Your task to perform on an android device: turn pop-ups on in chrome Image 0: 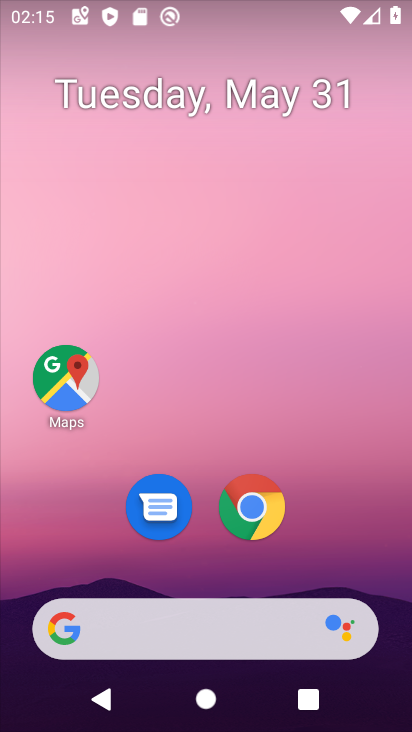
Step 0: click (259, 519)
Your task to perform on an android device: turn pop-ups on in chrome Image 1: 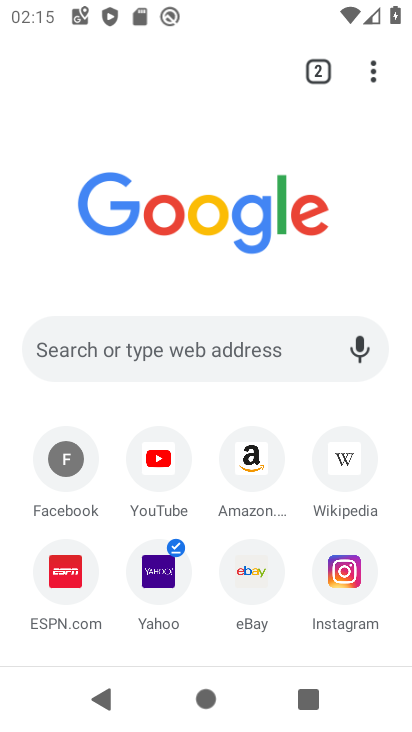
Step 1: click (378, 81)
Your task to perform on an android device: turn pop-ups on in chrome Image 2: 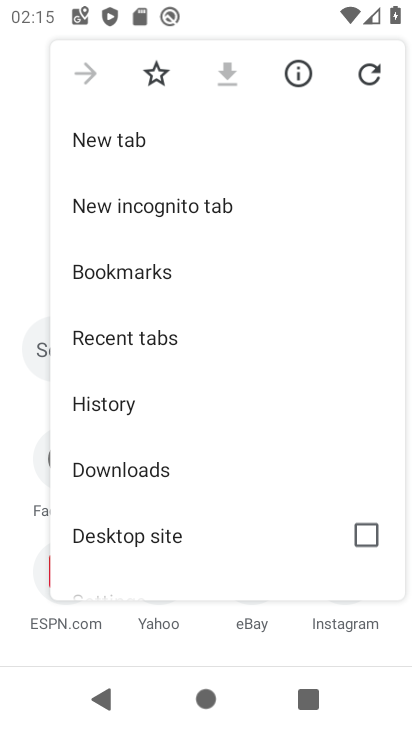
Step 2: drag from (80, 554) to (159, 127)
Your task to perform on an android device: turn pop-ups on in chrome Image 3: 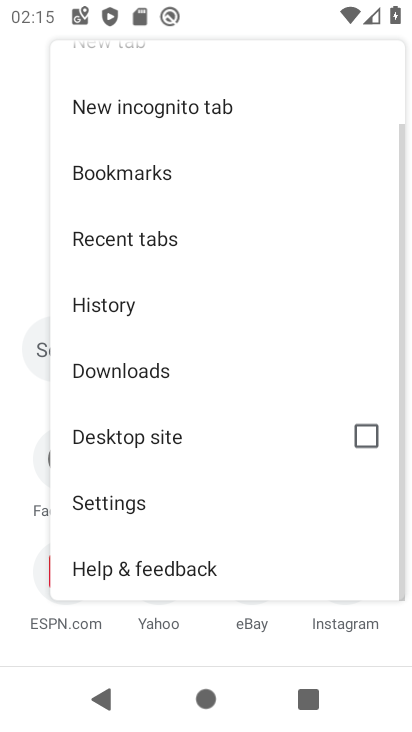
Step 3: click (192, 508)
Your task to perform on an android device: turn pop-ups on in chrome Image 4: 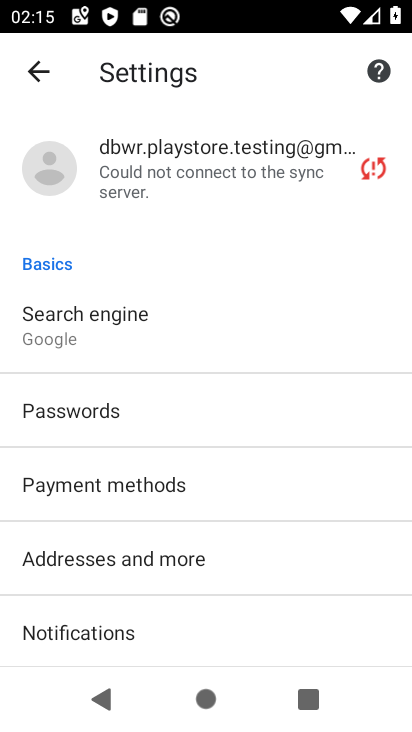
Step 4: drag from (165, 654) to (256, 196)
Your task to perform on an android device: turn pop-ups on in chrome Image 5: 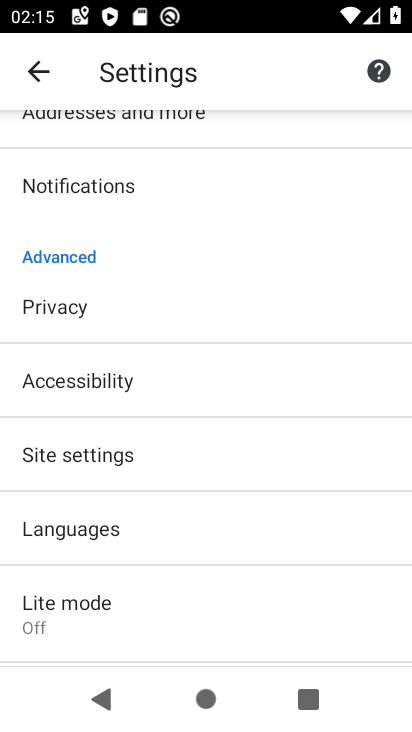
Step 5: click (60, 473)
Your task to perform on an android device: turn pop-ups on in chrome Image 6: 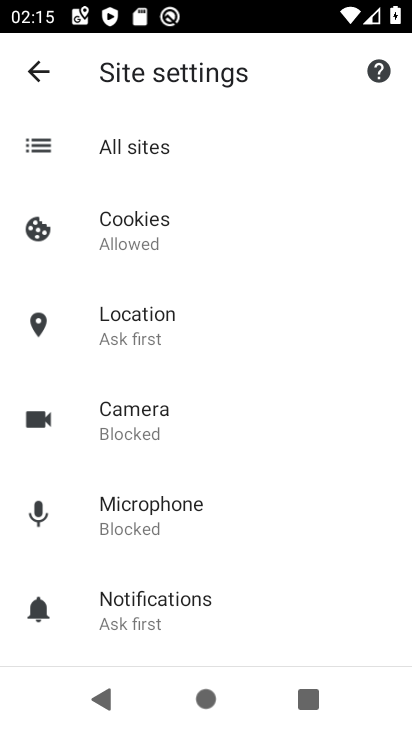
Step 6: drag from (86, 656) to (234, 86)
Your task to perform on an android device: turn pop-ups on in chrome Image 7: 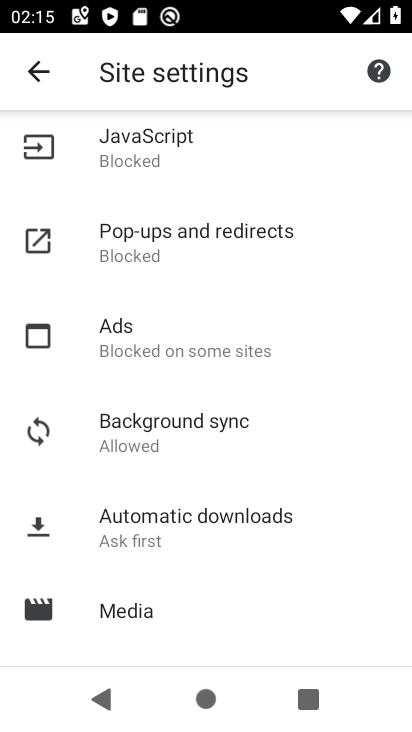
Step 7: click (177, 238)
Your task to perform on an android device: turn pop-ups on in chrome Image 8: 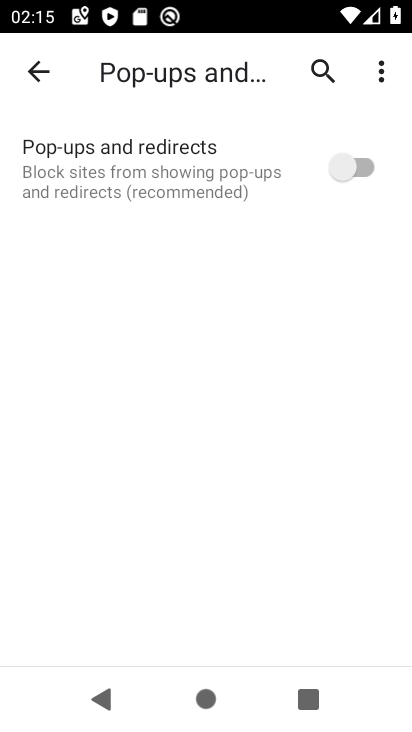
Step 8: click (350, 163)
Your task to perform on an android device: turn pop-ups on in chrome Image 9: 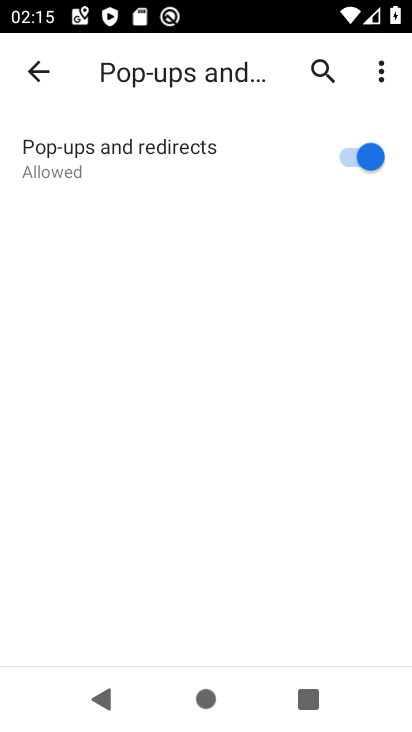
Step 9: task complete